Your task to perform on an android device: make emails show in primary in the gmail app Image 0: 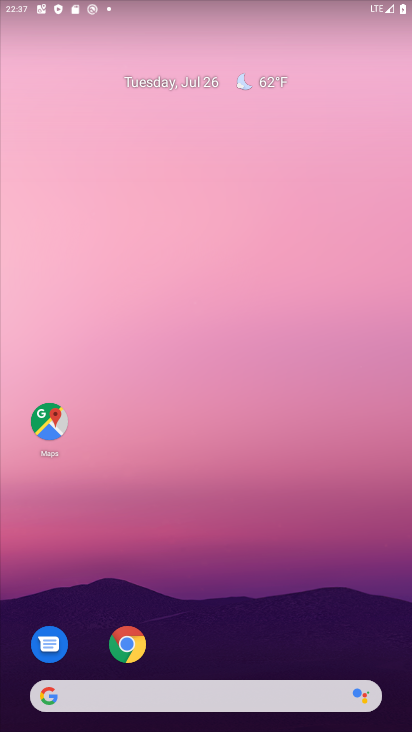
Step 0: drag from (230, 620) to (243, 54)
Your task to perform on an android device: make emails show in primary in the gmail app Image 1: 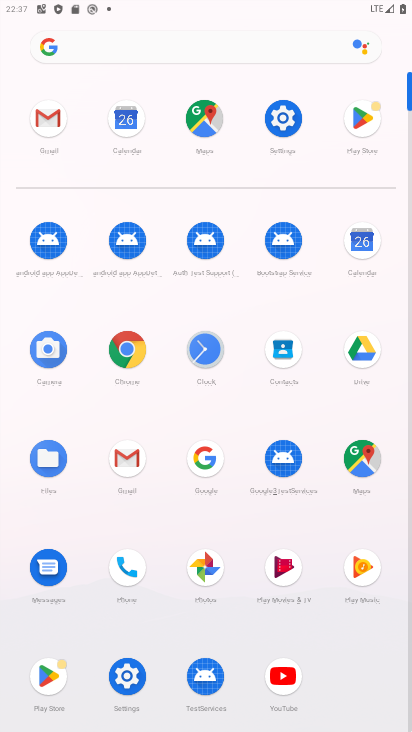
Step 1: click (45, 117)
Your task to perform on an android device: make emails show in primary in the gmail app Image 2: 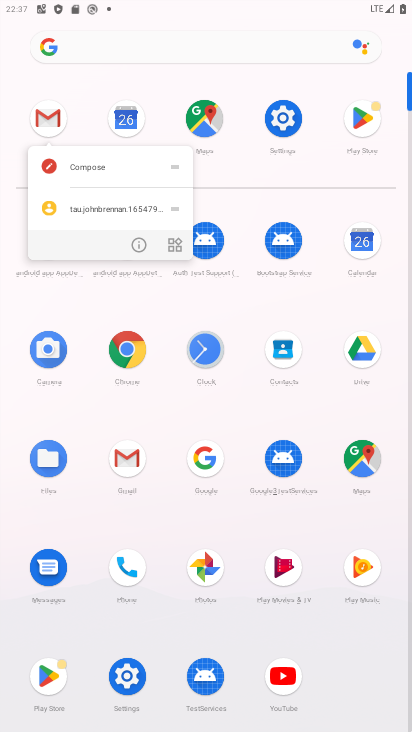
Step 2: click (45, 117)
Your task to perform on an android device: make emails show in primary in the gmail app Image 3: 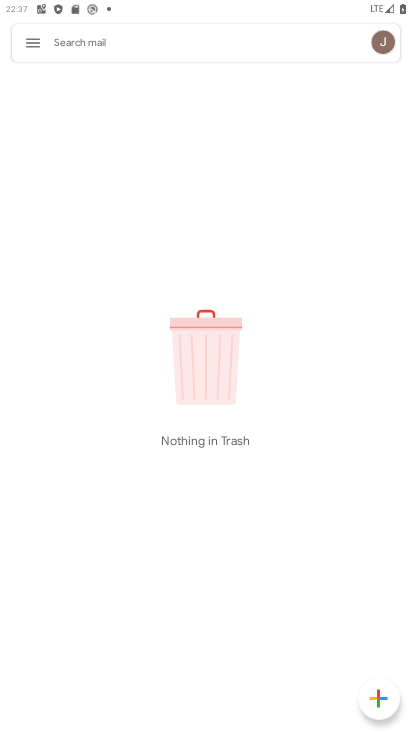
Step 3: click (39, 47)
Your task to perform on an android device: make emails show in primary in the gmail app Image 4: 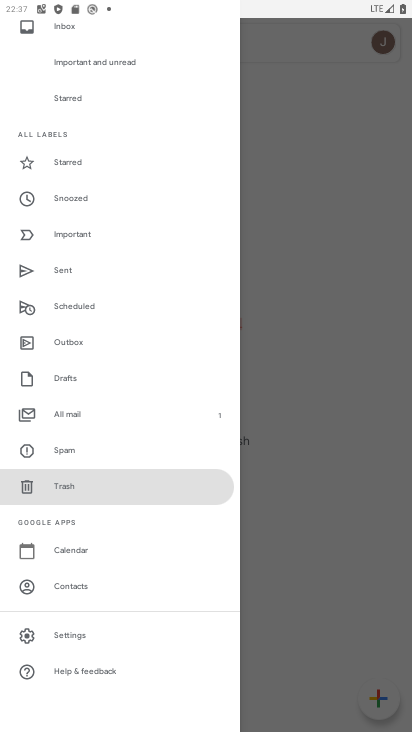
Step 4: click (66, 637)
Your task to perform on an android device: make emails show in primary in the gmail app Image 5: 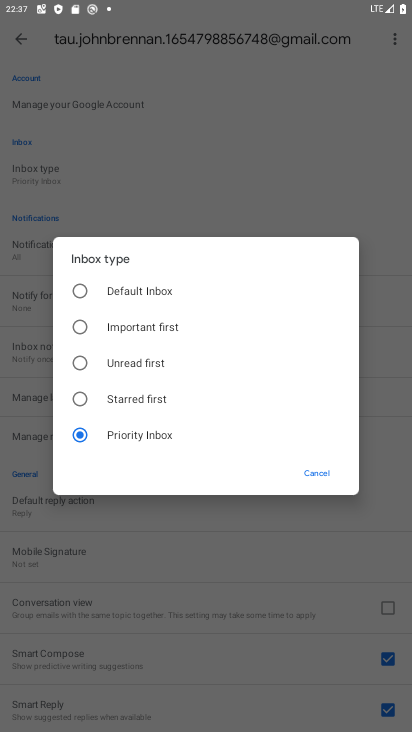
Step 5: click (306, 471)
Your task to perform on an android device: make emails show in primary in the gmail app Image 6: 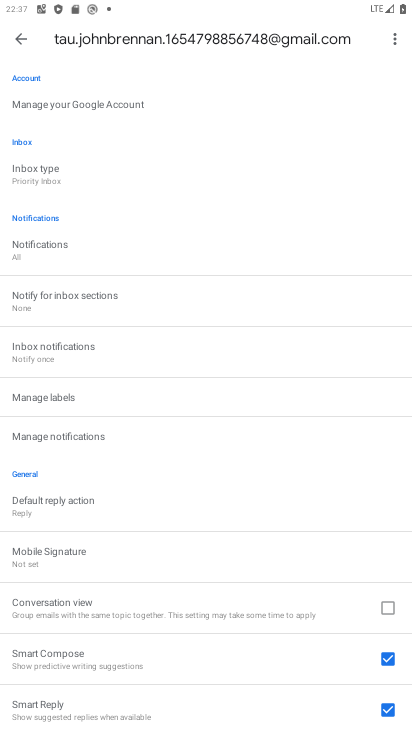
Step 6: task complete